Your task to perform on an android device: Go to Yahoo.com Image 0: 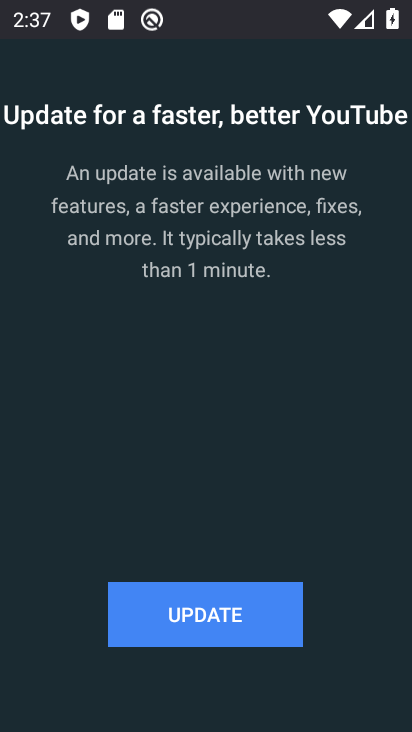
Step 0: press back button
Your task to perform on an android device: Go to Yahoo.com Image 1: 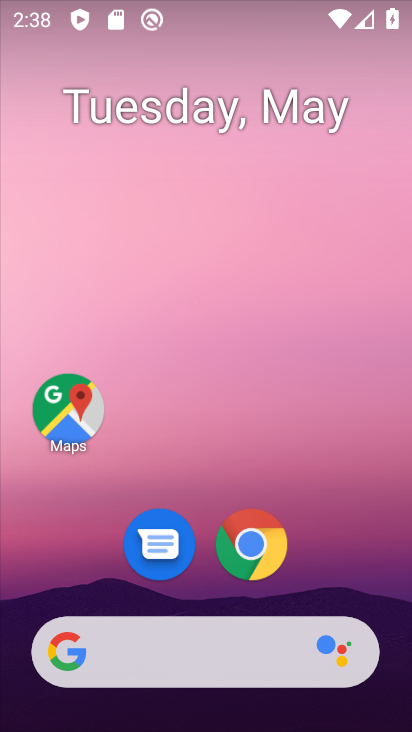
Step 1: click (251, 545)
Your task to perform on an android device: Go to Yahoo.com Image 2: 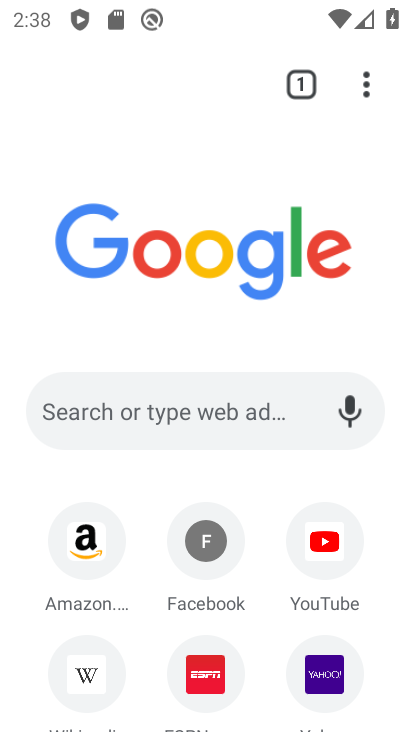
Step 2: click (184, 403)
Your task to perform on an android device: Go to Yahoo.com Image 3: 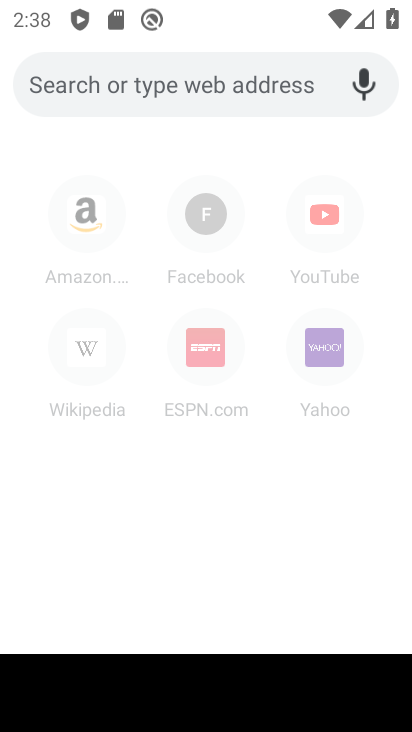
Step 3: type "Yahoo.com"
Your task to perform on an android device: Go to Yahoo.com Image 4: 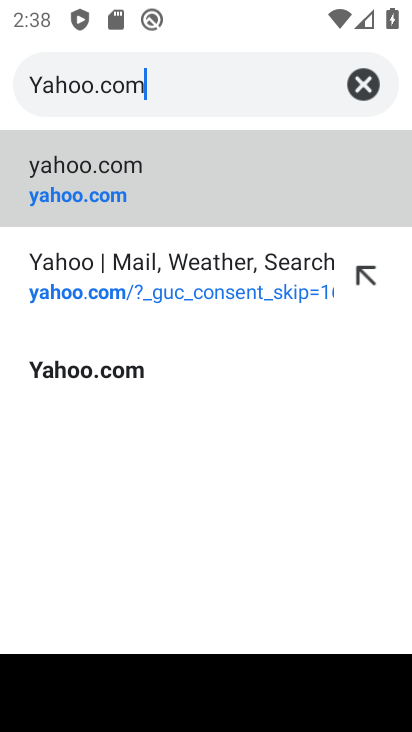
Step 4: click (90, 377)
Your task to perform on an android device: Go to Yahoo.com Image 5: 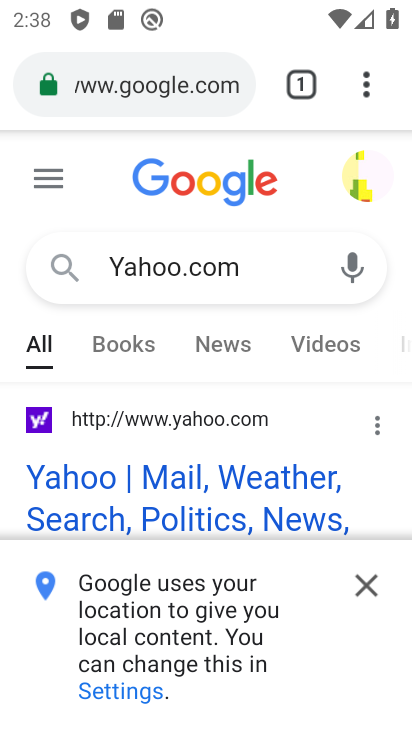
Step 5: click (141, 488)
Your task to perform on an android device: Go to Yahoo.com Image 6: 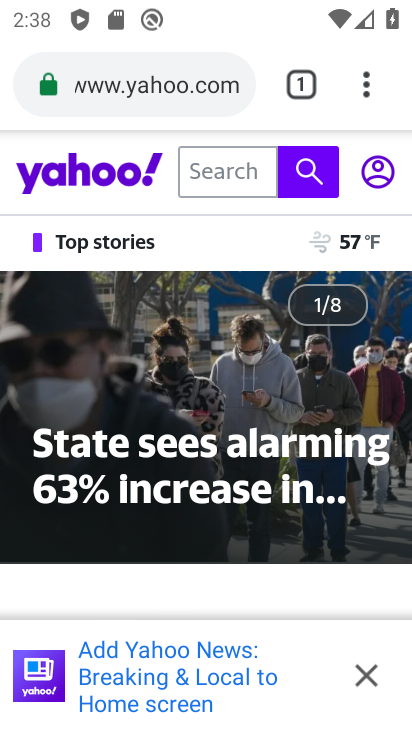
Step 6: task complete